Your task to perform on an android device: Open Google Chrome and open the bookmarks view Image 0: 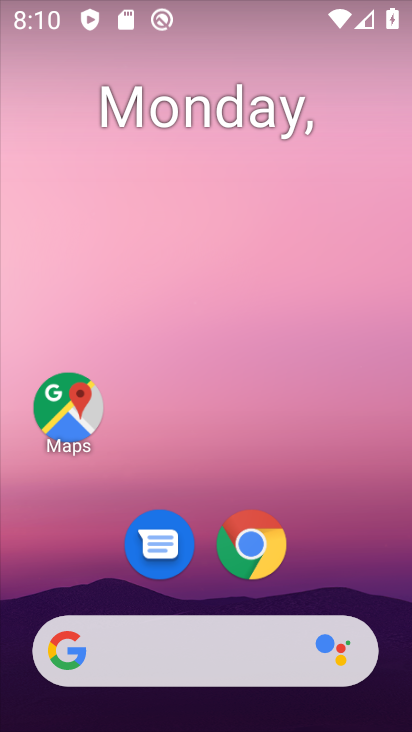
Step 0: click (249, 546)
Your task to perform on an android device: Open Google Chrome and open the bookmarks view Image 1: 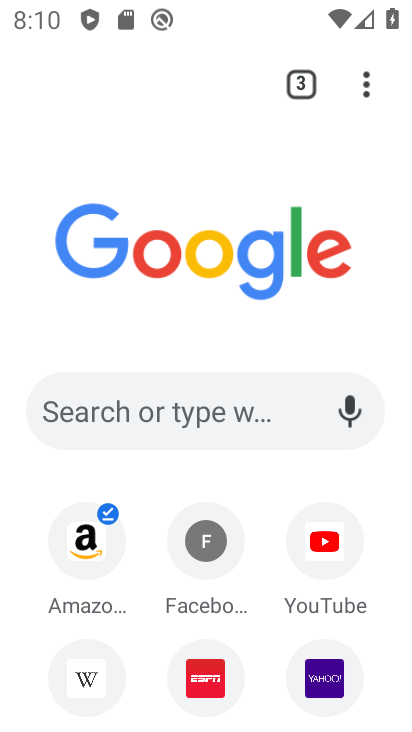
Step 1: task complete